Your task to perform on an android device: toggle priority inbox in the gmail app Image 0: 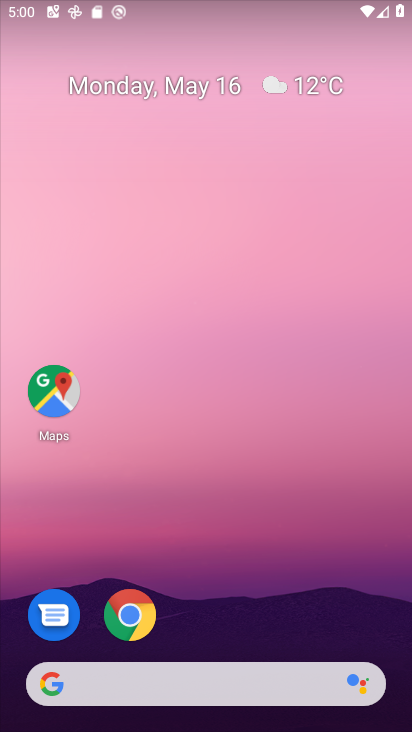
Step 0: click (256, 43)
Your task to perform on an android device: toggle priority inbox in the gmail app Image 1: 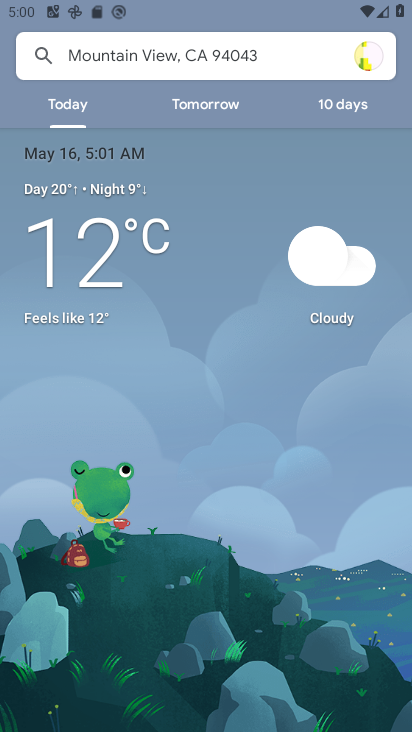
Step 1: press home button
Your task to perform on an android device: toggle priority inbox in the gmail app Image 2: 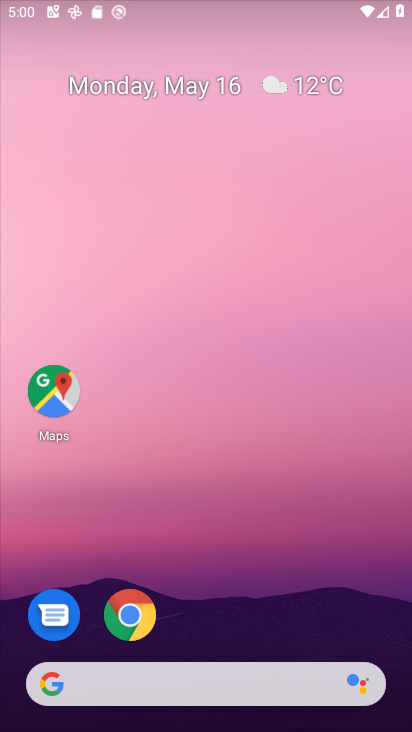
Step 2: drag from (259, 634) to (245, 65)
Your task to perform on an android device: toggle priority inbox in the gmail app Image 3: 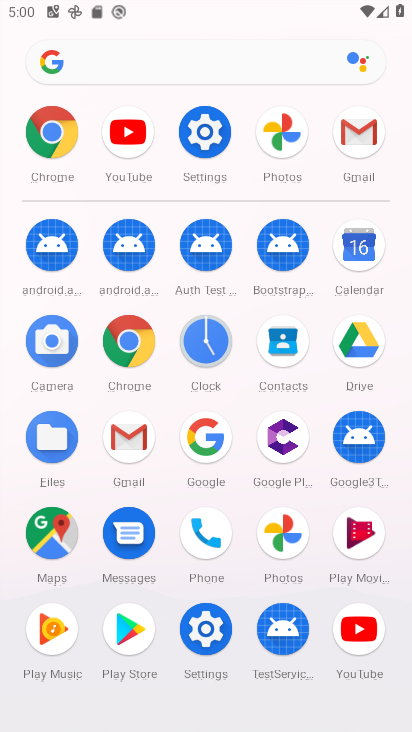
Step 3: click (360, 150)
Your task to perform on an android device: toggle priority inbox in the gmail app Image 4: 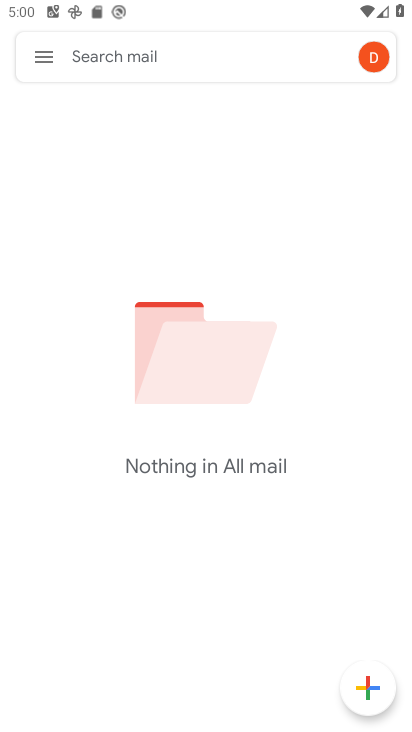
Step 4: click (45, 62)
Your task to perform on an android device: toggle priority inbox in the gmail app Image 5: 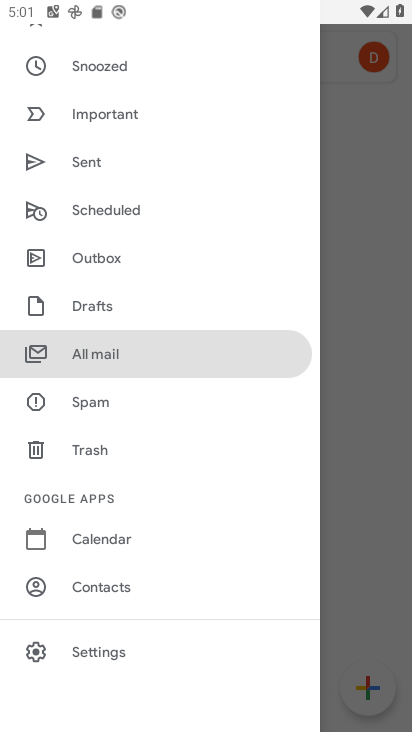
Step 5: click (119, 656)
Your task to perform on an android device: toggle priority inbox in the gmail app Image 6: 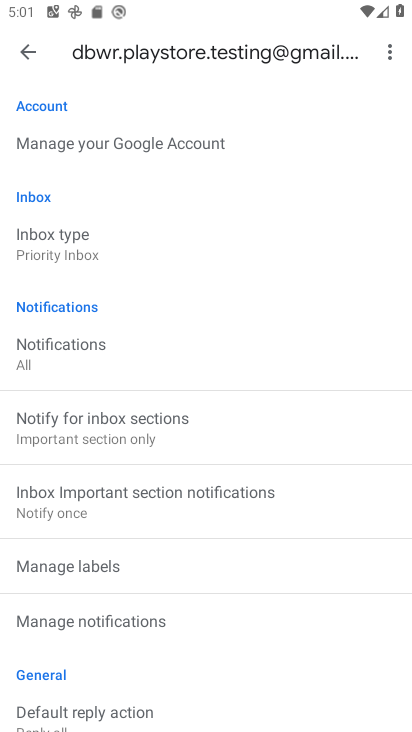
Step 6: click (87, 247)
Your task to perform on an android device: toggle priority inbox in the gmail app Image 7: 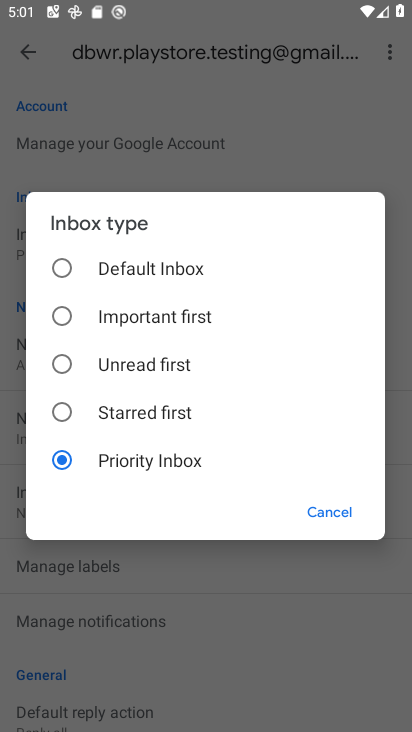
Step 7: click (69, 272)
Your task to perform on an android device: toggle priority inbox in the gmail app Image 8: 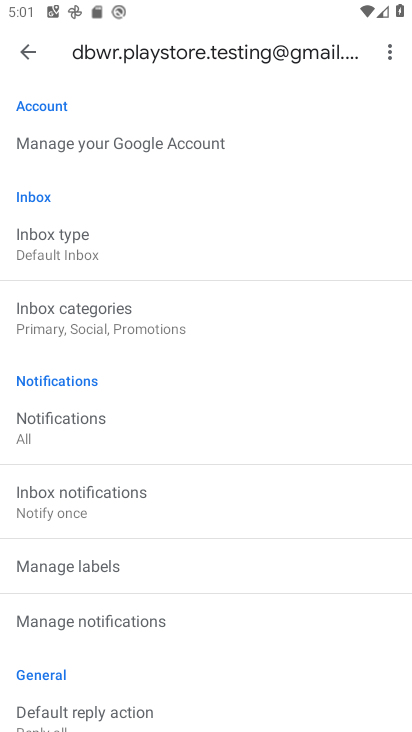
Step 8: task complete